Your task to perform on an android device: Open privacy settings Image 0: 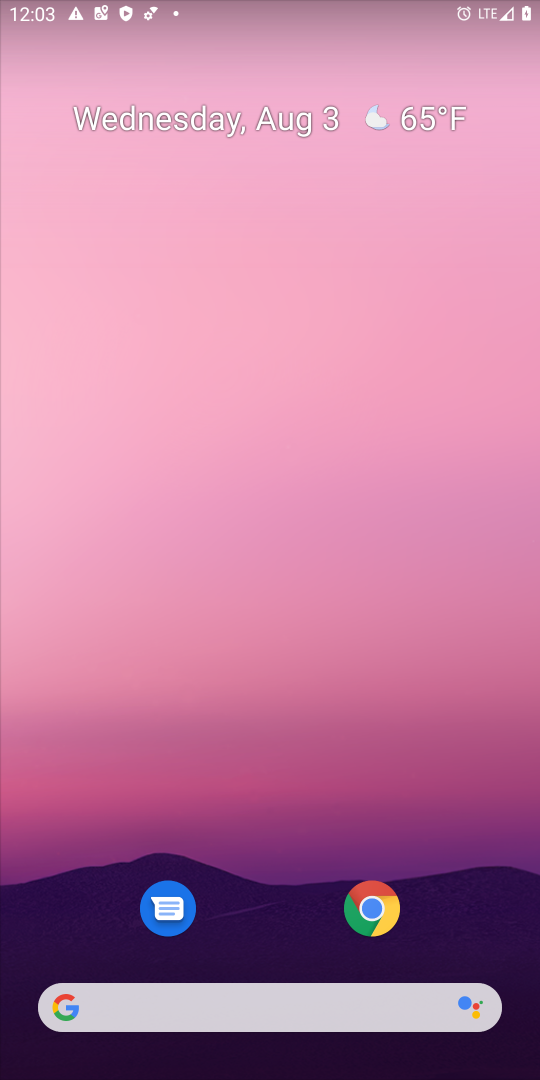
Step 0: drag from (274, 741) to (265, 208)
Your task to perform on an android device: Open privacy settings Image 1: 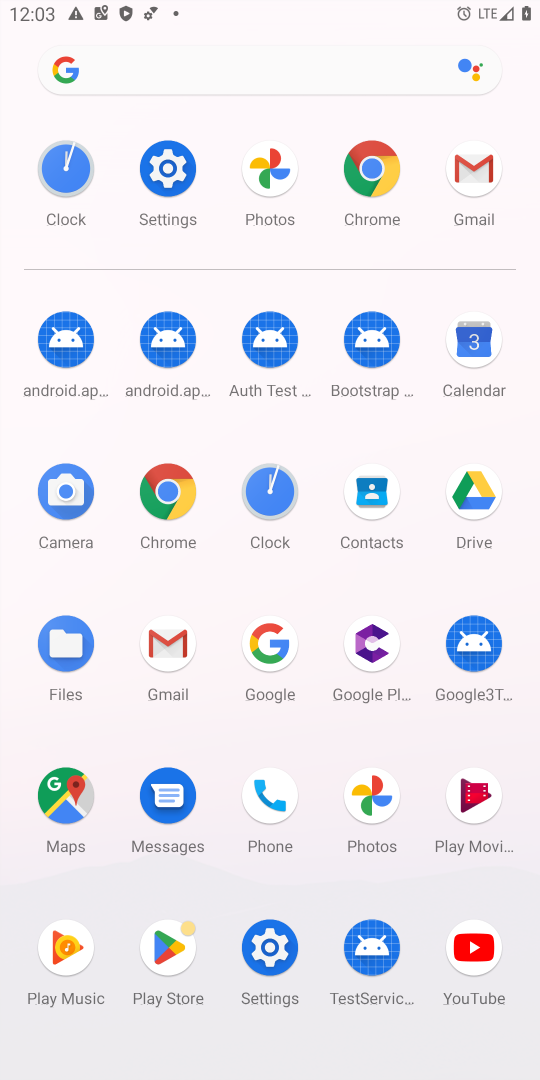
Step 1: click (176, 509)
Your task to perform on an android device: Open privacy settings Image 2: 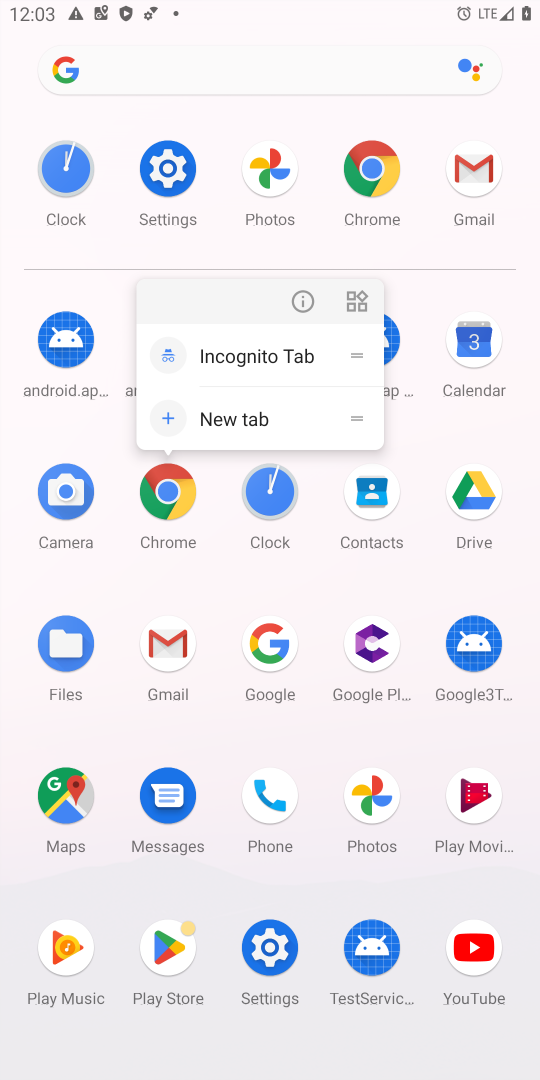
Step 2: click (161, 491)
Your task to perform on an android device: Open privacy settings Image 3: 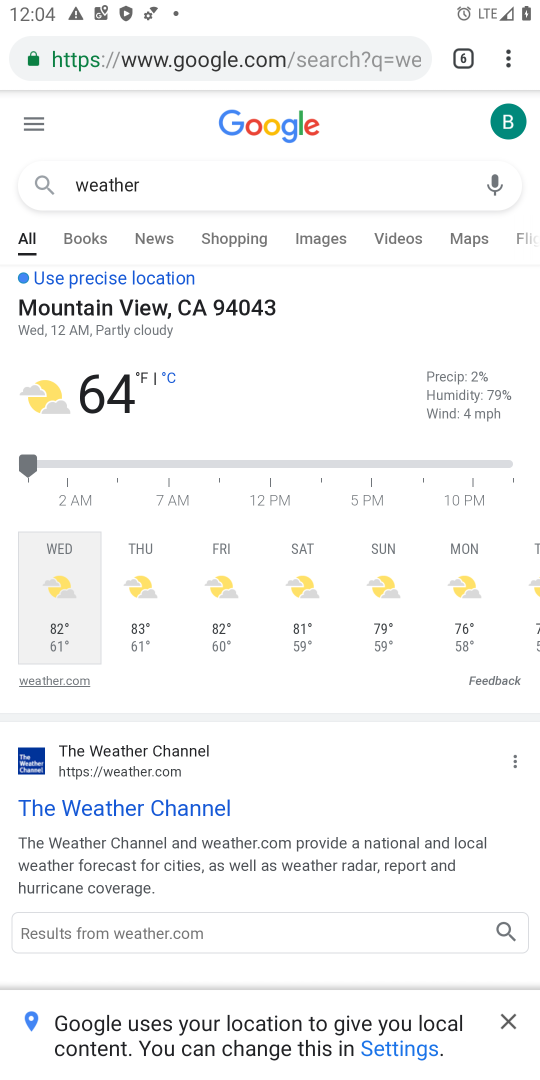
Step 3: click (510, 57)
Your task to perform on an android device: Open privacy settings Image 4: 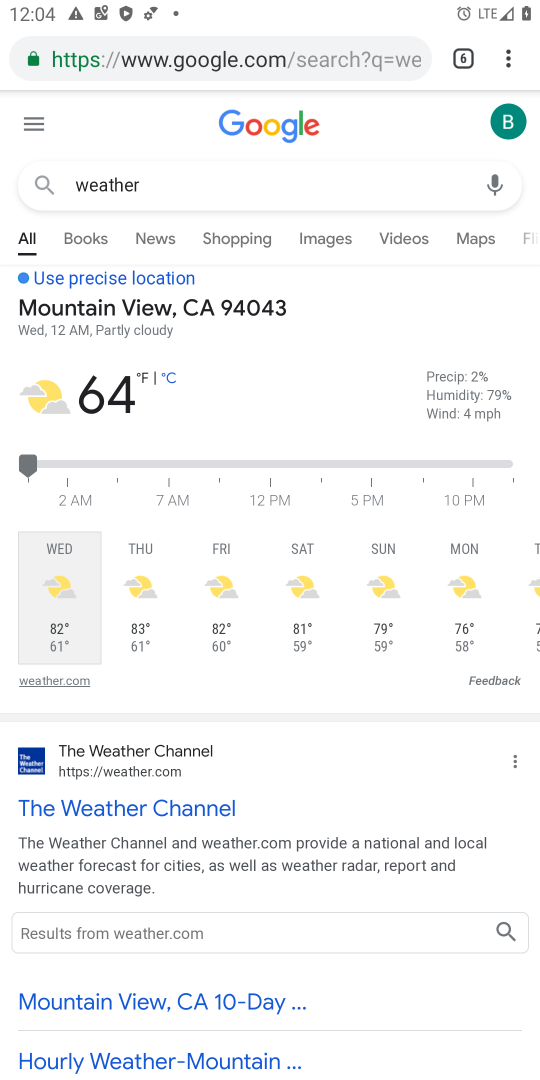
Step 4: click (509, 63)
Your task to perform on an android device: Open privacy settings Image 5: 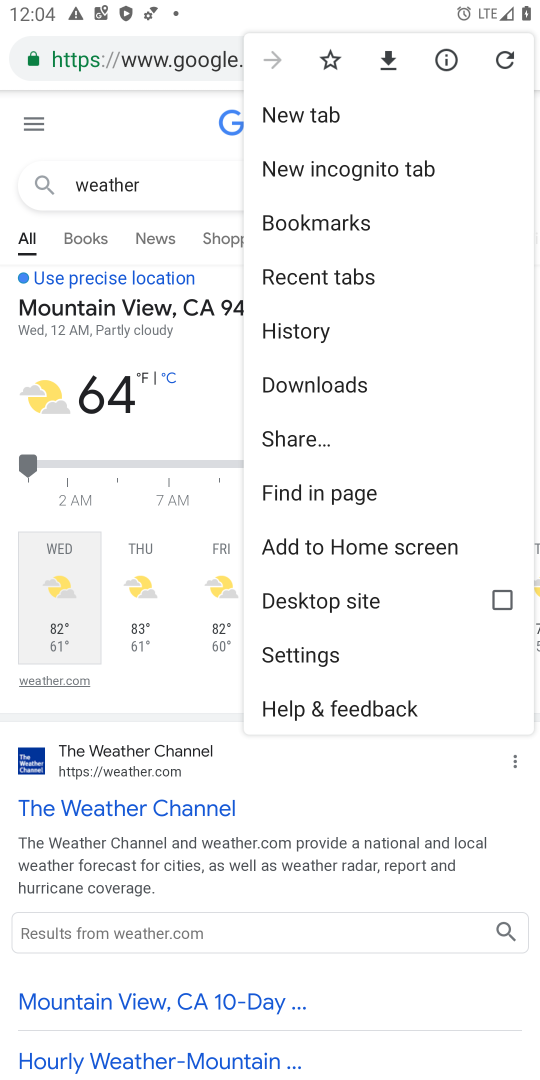
Step 5: click (340, 657)
Your task to perform on an android device: Open privacy settings Image 6: 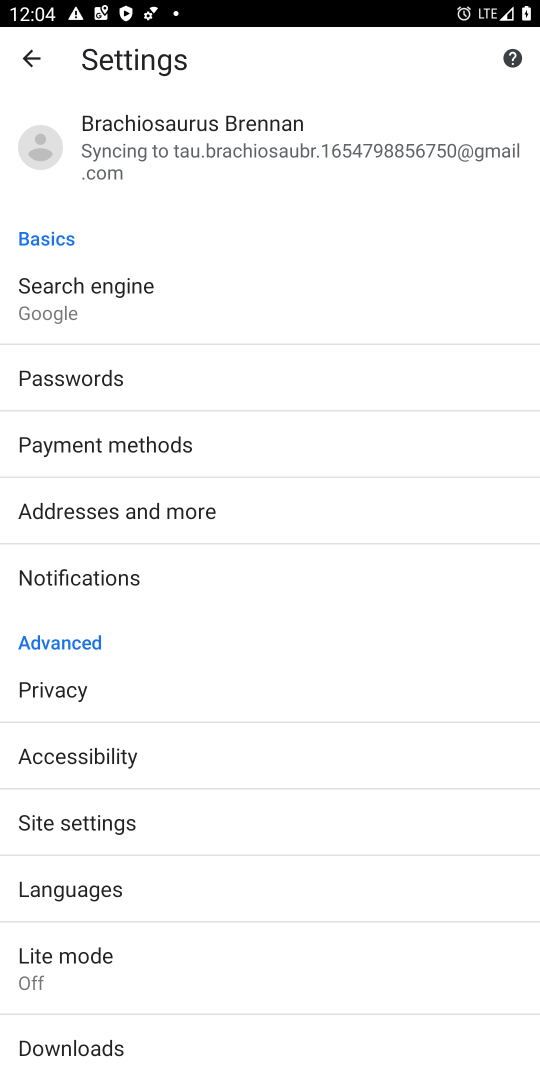
Step 6: click (115, 690)
Your task to perform on an android device: Open privacy settings Image 7: 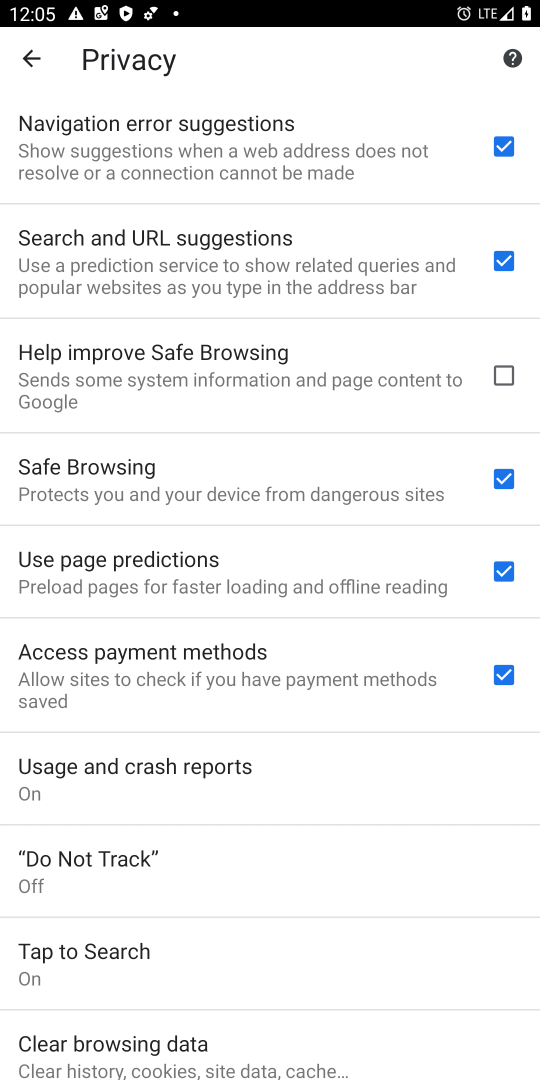
Step 7: task complete